Your task to perform on an android device: When is my next appointment? Image 0: 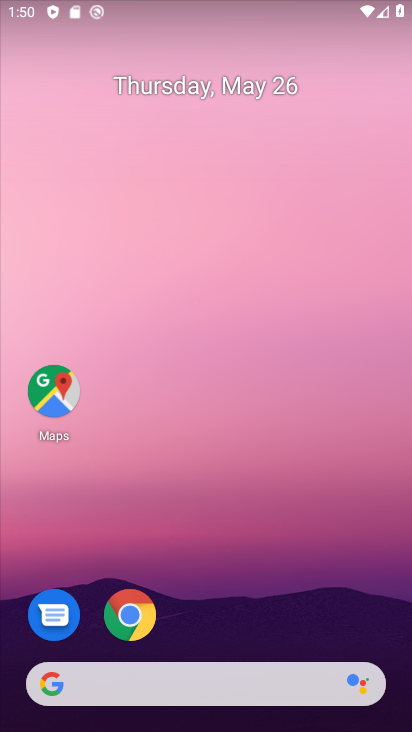
Step 0: click (128, 611)
Your task to perform on an android device: When is my next appointment? Image 1: 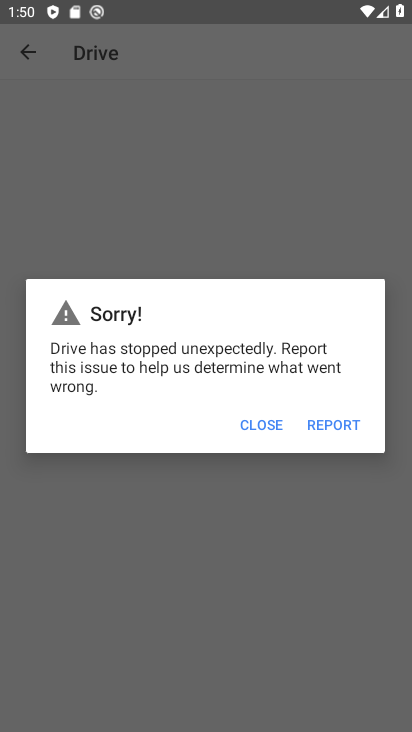
Step 1: press home button
Your task to perform on an android device: When is my next appointment? Image 2: 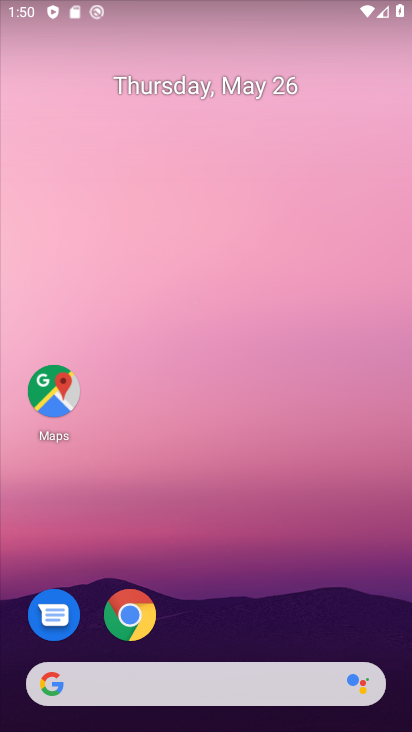
Step 2: drag from (221, 640) to (296, 33)
Your task to perform on an android device: When is my next appointment? Image 3: 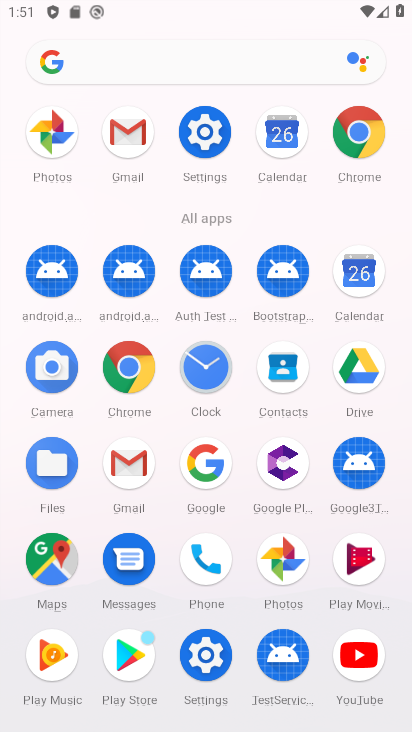
Step 3: click (354, 264)
Your task to perform on an android device: When is my next appointment? Image 4: 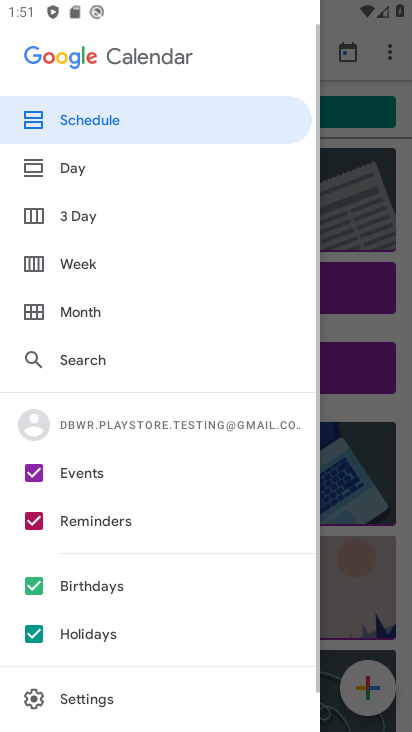
Step 4: click (353, 116)
Your task to perform on an android device: When is my next appointment? Image 5: 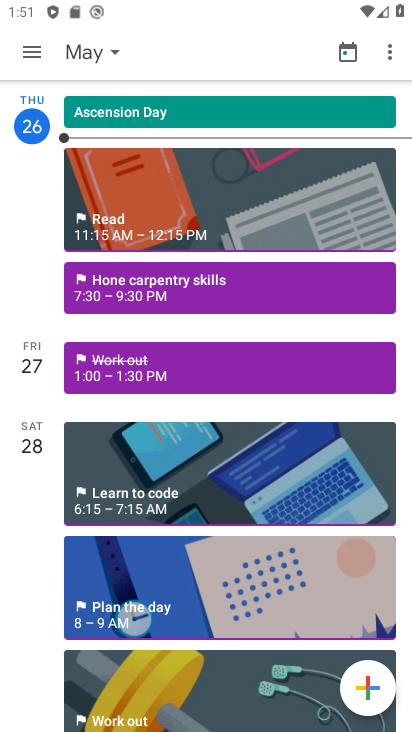
Step 5: task complete